Your task to perform on an android device: Open Google Chrome and click the shortcut for Amazon.com Image 0: 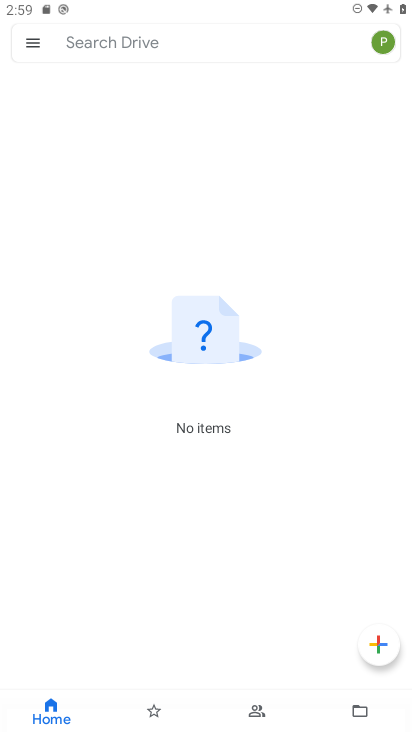
Step 0: press home button
Your task to perform on an android device: Open Google Chrome and click the shortcut for Amazon.com Image 1: 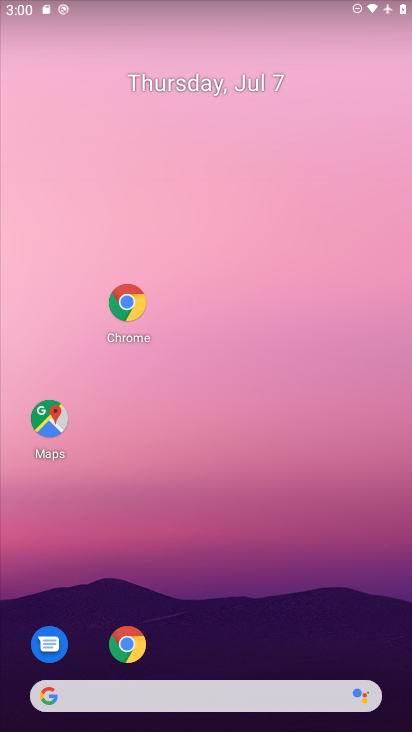
Step 1: drag from (250, 583) to (304, 87)
Your task to perform on an android device: Open Google Chrome and click the shortcut for Amazon.com Image 2: 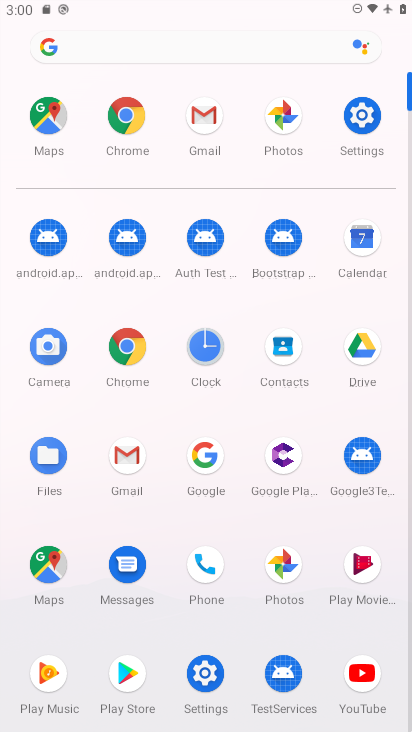
Step 2: click (129, 354)
Your task to perform on an android device: Open Google Chrome and click the shortcut for Amazon.com Image 3: 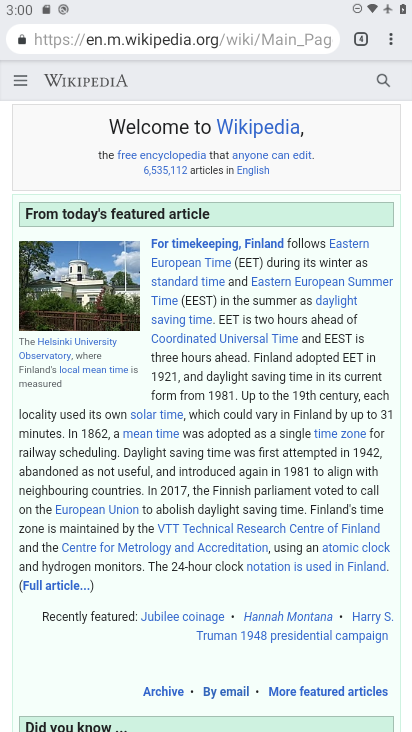
Step 3: click (353, 40)
Your task to perform on an android device: Open Google Chrome and click the shortcut for Amazon.com Image 4: 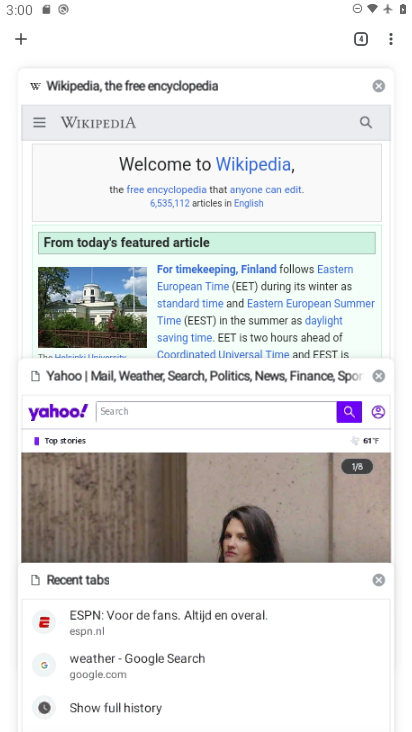
Step 4: click (28, 44)
Your task to perform on an android device: Open Google Chrome and click the shortcut for Amazon.com Image 5: 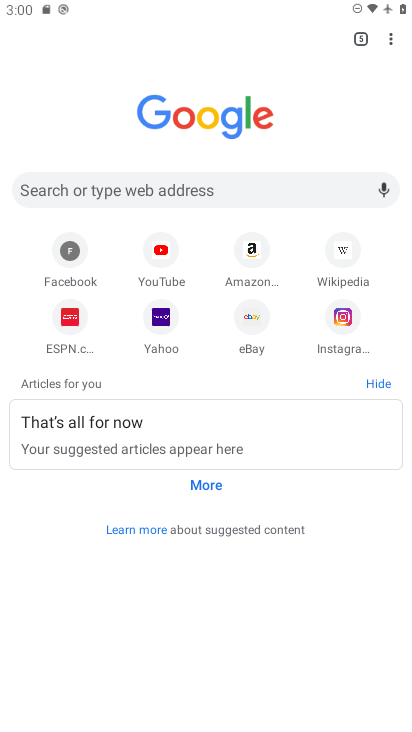
Step 5: click (256, 256)
Your task to perform on an android device: Open Google Chrome and click the shortcut for Amazon.com Image 6: 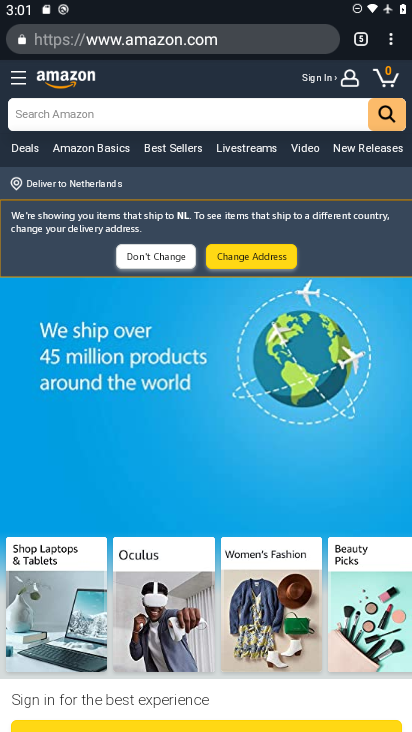
Step 6: task complete